Your task to perform on an android device: turn on airplane mode Image 0: 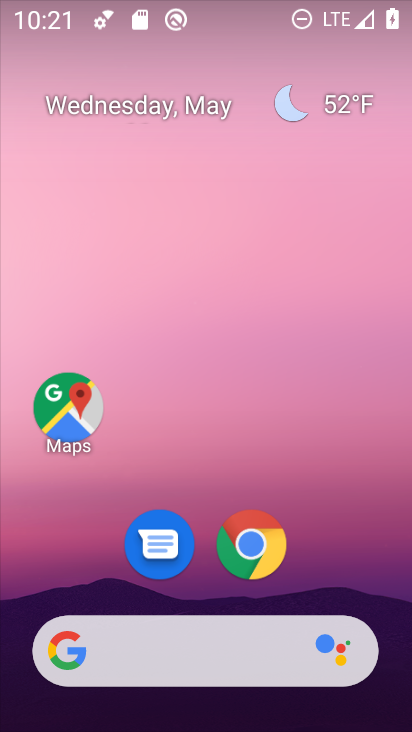
Step 0: drag from (232, 19) to (157, 472)
Your task to perform on an android device: turn on airplane mode Image 1: 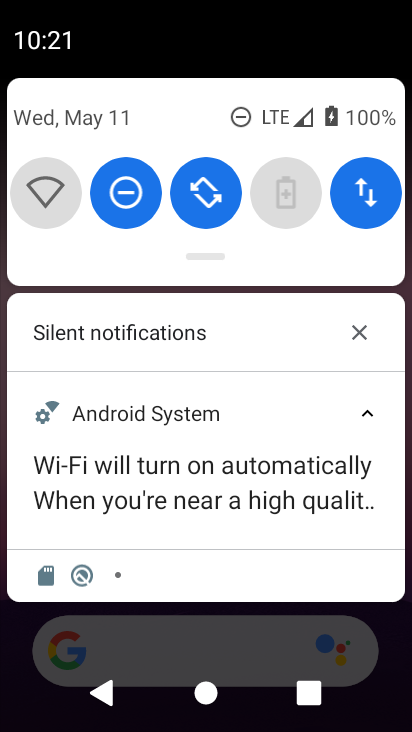
Step 1: drag from (276, 164) to (283, 510)
Your task to perform on an android device: turn on airplane mode Image 2: 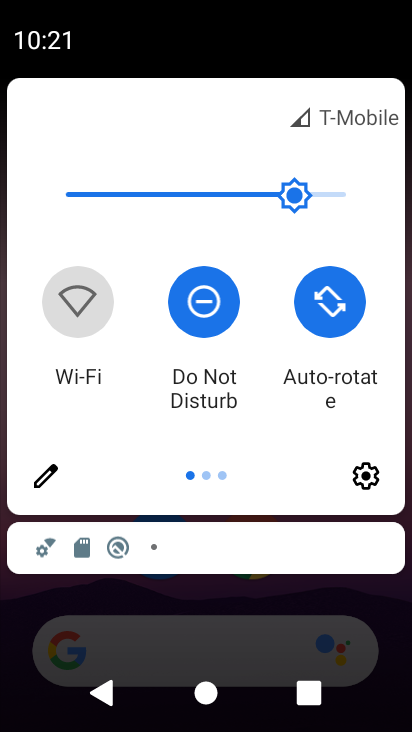
Step 2: drag from (362, 439) to (0, 414)
Your task to perform on an android device: turn on airplane mode Image 3: 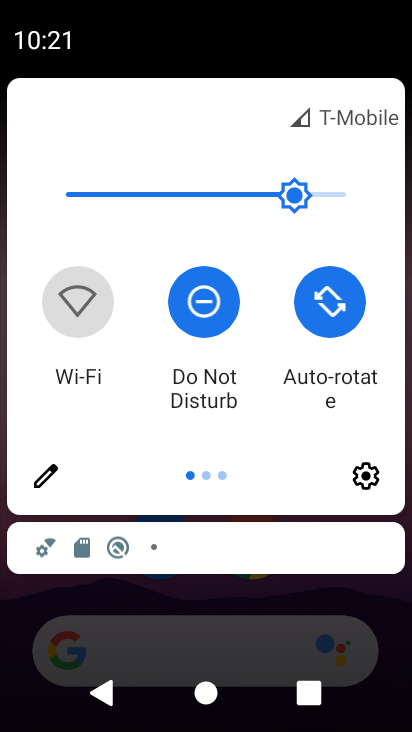
Step 3: drag from (357, 431) to (22, 415)
Your task to perform on an android device: turn on airplane mode Image 4: 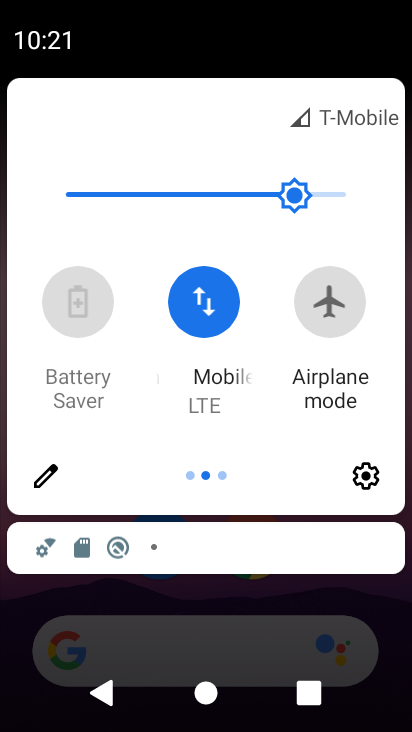
Step 4: click (365, 301)
Your task to perform on an android device: turn on airplane mode Image 5: 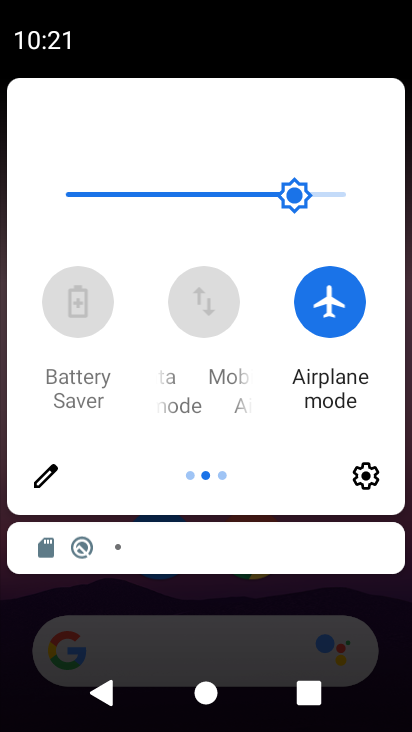
Step 5: task complete